Your task to perform on an android device: choose inbox layout in the gmail app Image 0: 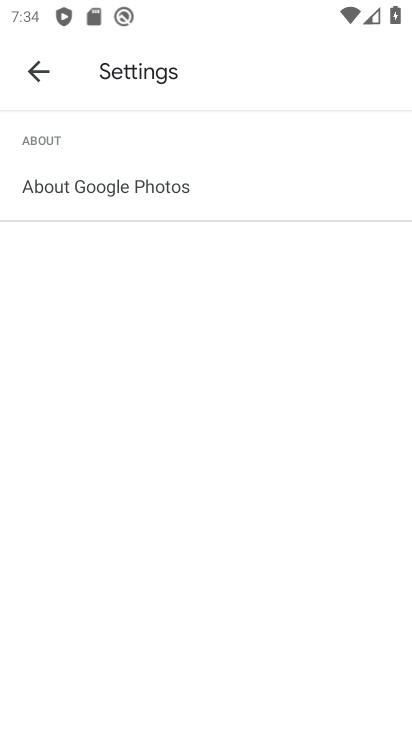
Step 0: press home button
Your task to perform on an android device: choose inbox layout in the gmail app Image 1: 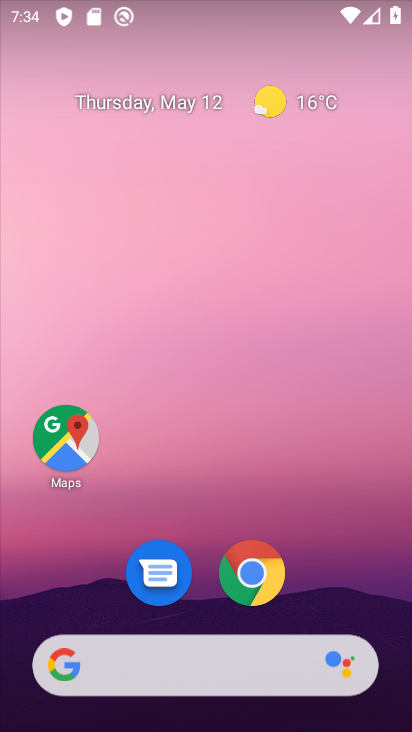
Step 1: drag from (75, 563) to (141, 164)
Your task to perform on an android device: choose inbox layout in the gmail app Image 2: 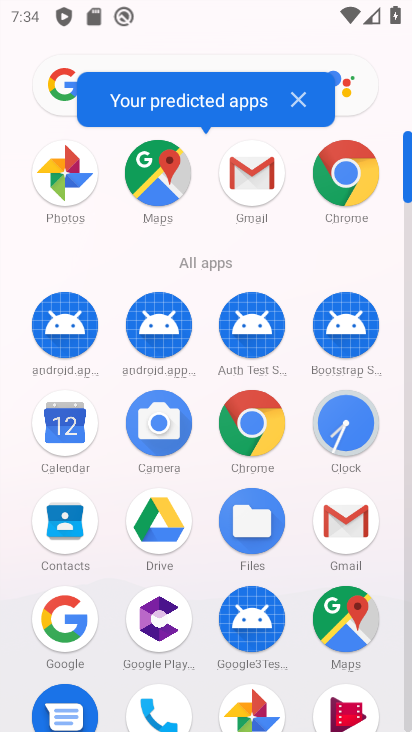
Step 2: click (254, 186)
Your task to perform on an android device: choose inbox layout in the gmail app Image 3: 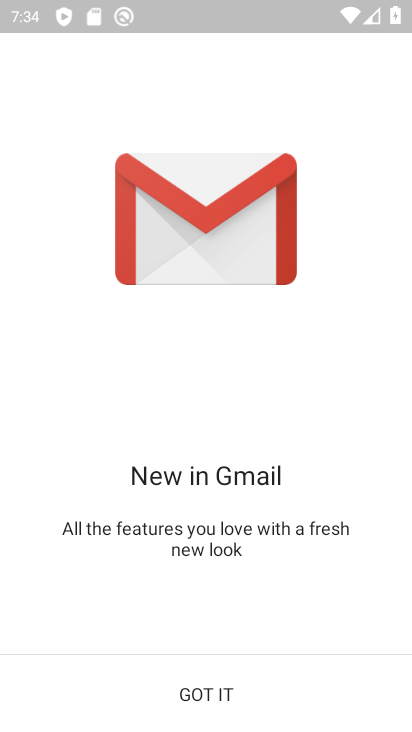
Step 3: click (222, 710)
Your task to perform on an android device: choose inbox layout in the gmail app Image 4: 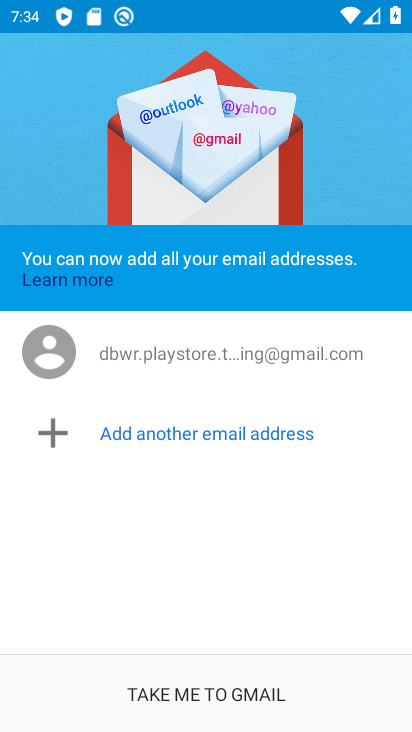
Step 4: click (260, 694)
Your task to perform on an android device: choose inbox layout in the gmail app Image 5: 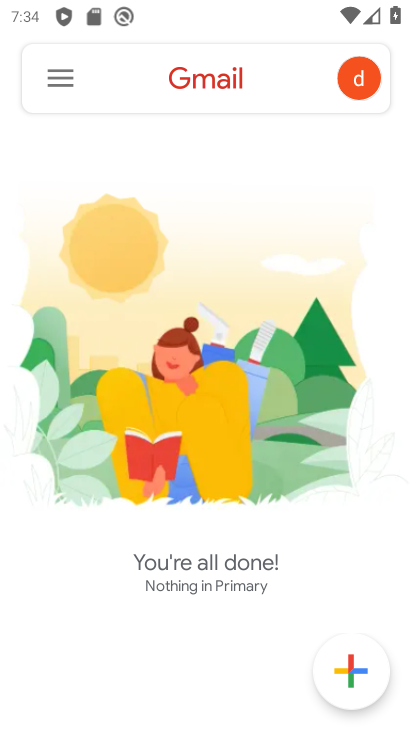
Step 5: click (62, 67)
Your task to perform on an android device: choose inbox layout in the gmail app Image 6: 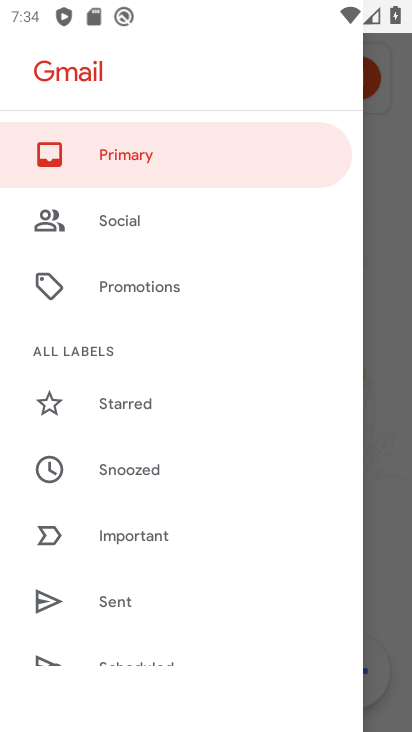
Step 6: drag from (236, 481) to (230, 121)
Your task to perform on an android device: choose inbox layout in the gmail app Image 7: 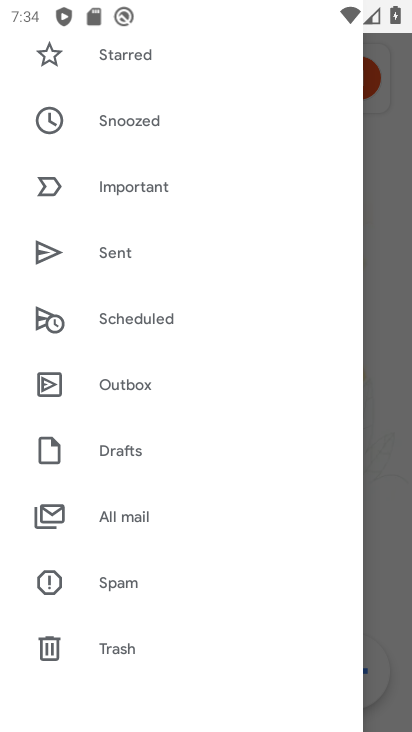
Step 7: drag from (248, 540) to (265, 164)
Your task to perform on an android device: choose inbox layout in the gmail app Image 8: 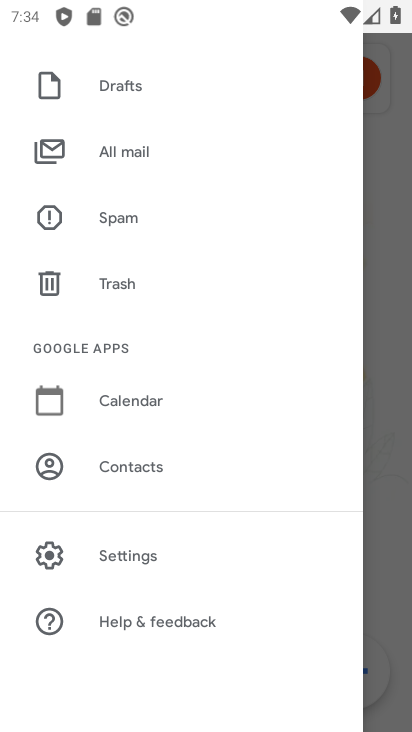
Step 8: click (119, 557)
Your task to perform on an android device: choose inbox layout in the gmail app Image 9: 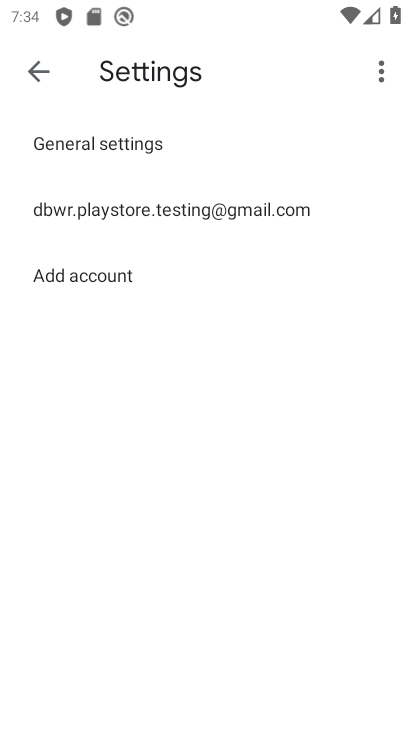
Step 9: click (131, 225)
Your task to perform on an android device: choose inbox layout in the gmail app Image 10: 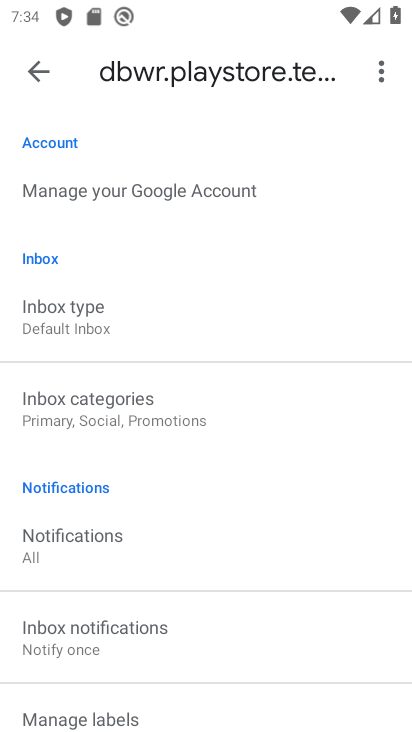
Step 10: click (118, 329)
Your task to perform on an android device: choose inbox layout in the gmail app Image 11: 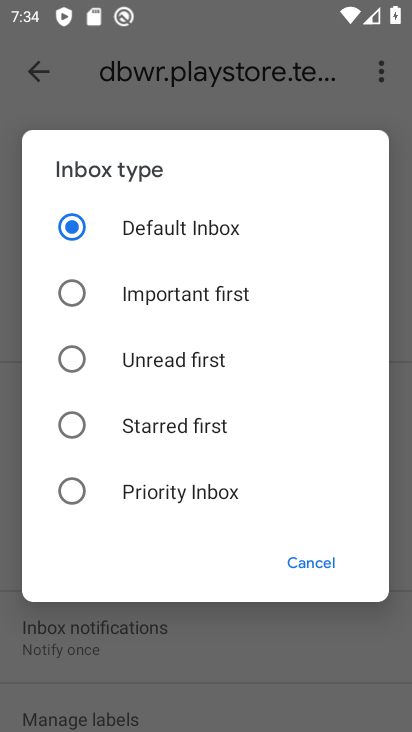
Step 11: click (73, 282)
Your task to perform on an android device: choose inbox layout in the gmail app Image 12: 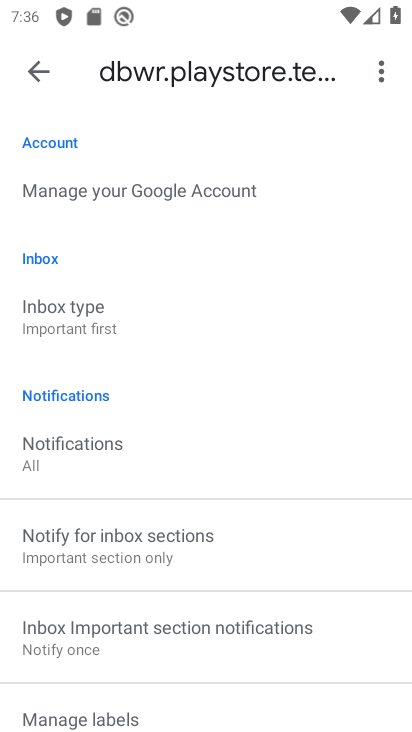
Step 12: task complete